Your task to perform on an android device: turn off smart reply in the gmail app Image 0: 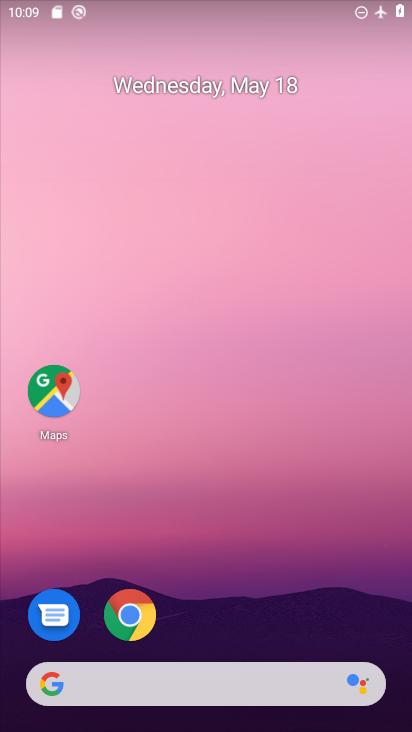
Step 0: drag from (254, 604) to (295, 99)
Your task to perform on an android device: turn off smart reply in the gmail app Image 1: 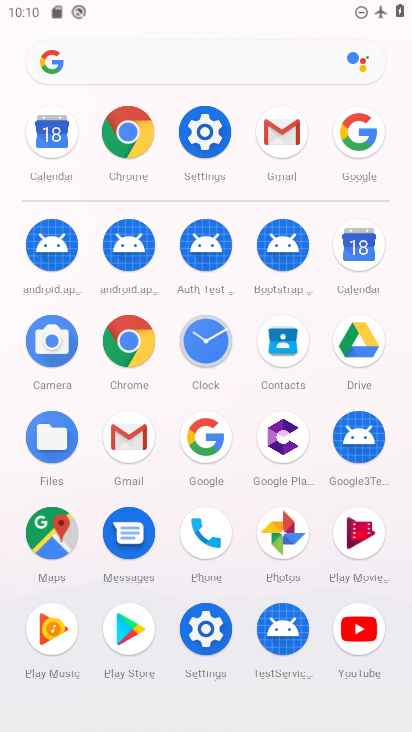
Step 1: click (117, 448)
Your task to perform on an android device: turn off smart reply in the gmail app Image 2: 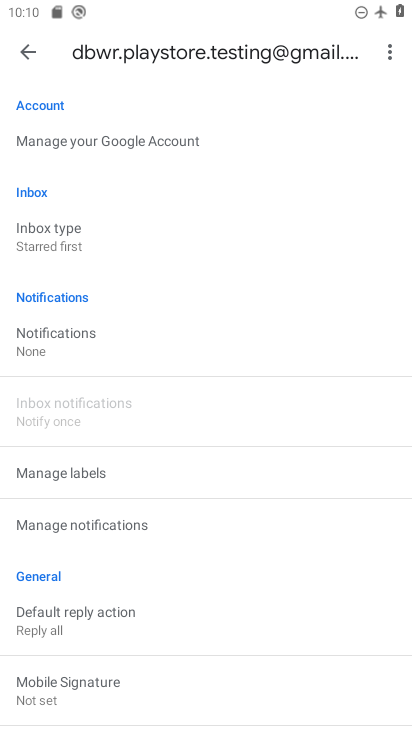
Step 2: drag from (209, 579) to (256, 181)
Your task to perform on an android device: turn off smart reply in the gmail app Image 3: 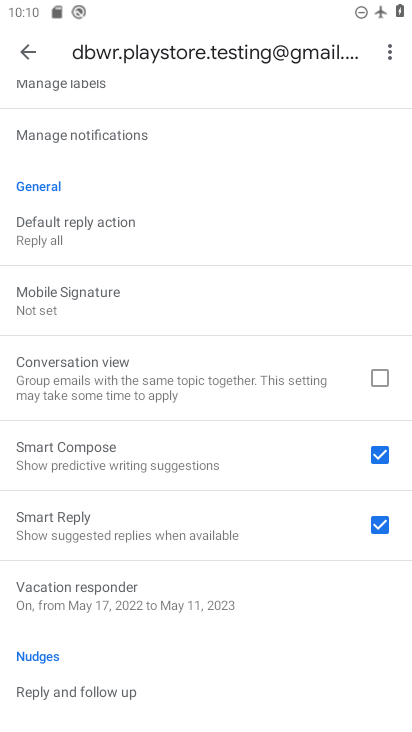
Step 3: click (378, 528)
Your task to perform on an android device: turn off smart reply in the gmail app Image 4: 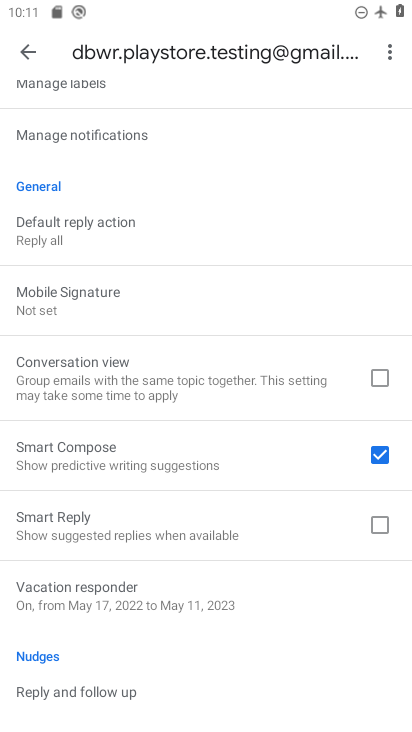
Step 4: task complete